Your task to perform on an android device: open app "Reddit" Image 0: 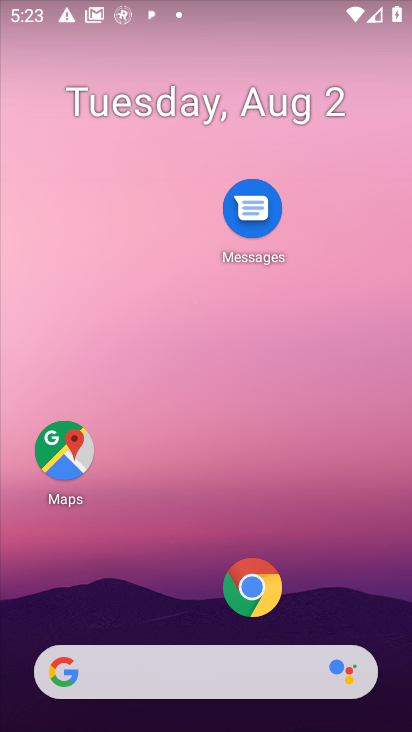
Step 0: drag from (155, 621) to (137, 239)
Your task to perform on an android device: open app "Reddit" Image 1: 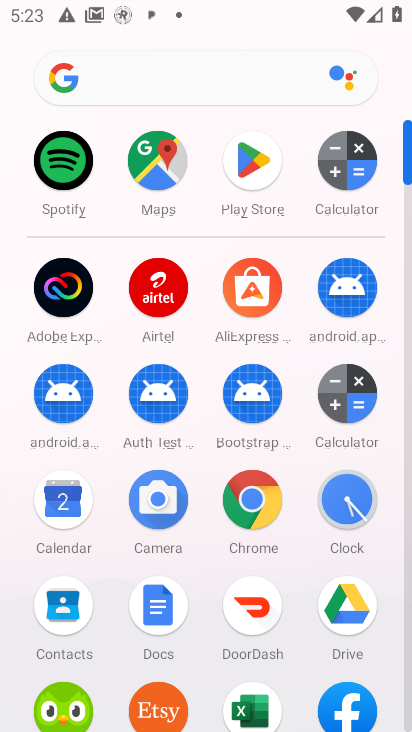
Step 1: click (248, 171)
Your task to perform on an android device: open app "Reddit" Image 2: 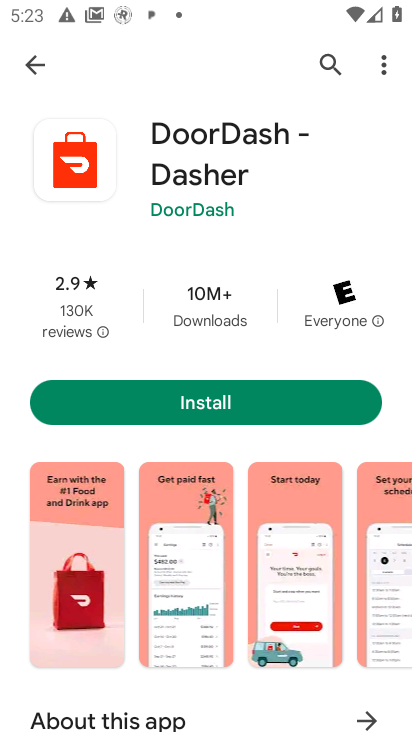
Step 2: click (324, 63)
Your task to perform on an android device: open app "Reddit" Image 3: 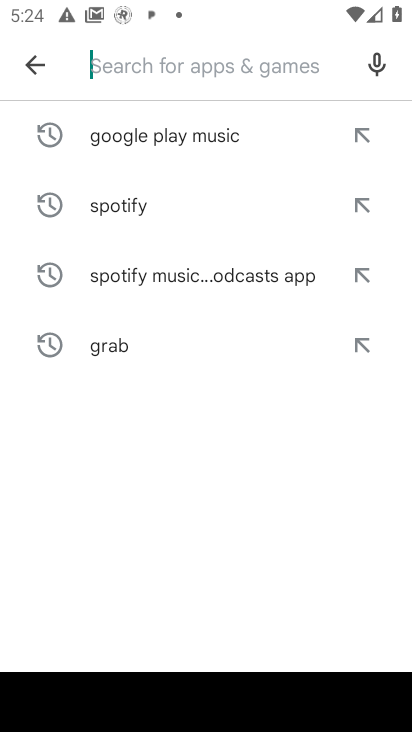
Step 3: type "Reddit"
Your task to perform on an android device: open app "Reddit" Image 4: 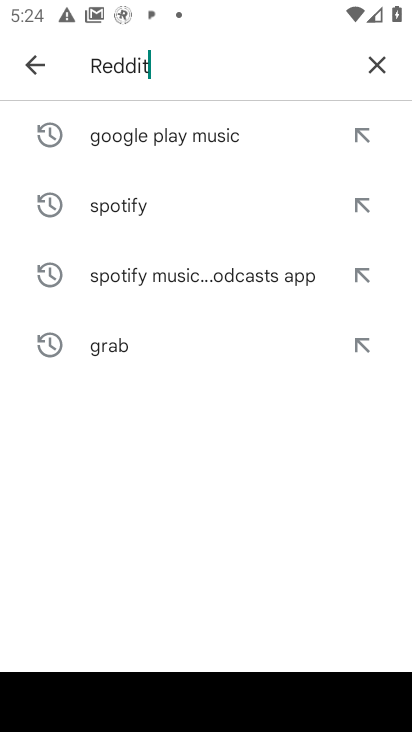
Step 4: type ""
Your task to perform on an android device: open app "Reddit" Image 5: 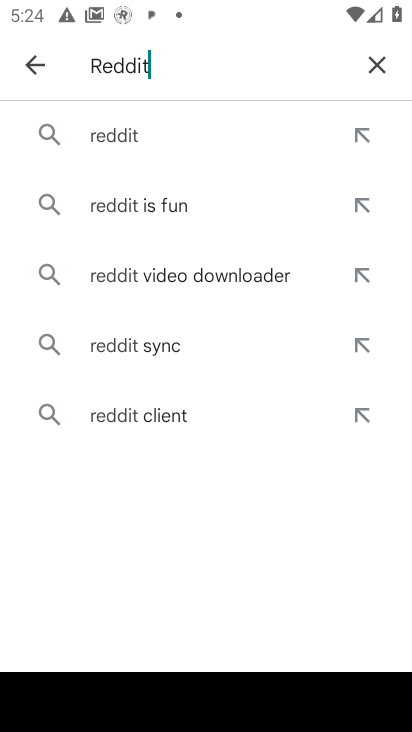
Step 5: click (191, 128)
Your task to perform on an android device: open app "Reddit" Image 6: 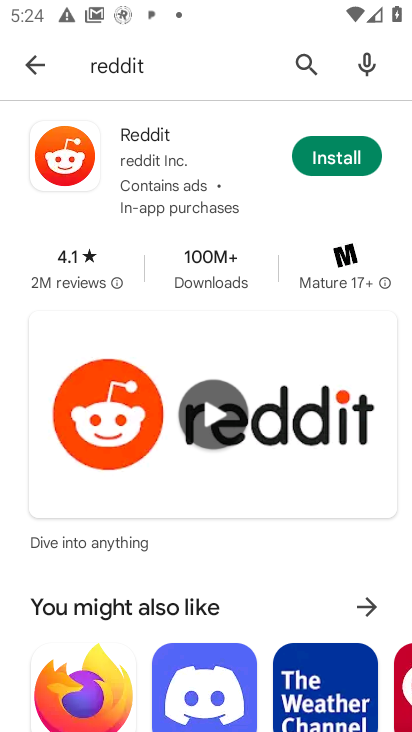
Step 6: task complete